Your task to perform on an android device: see creations saved in the google photos Image 0: 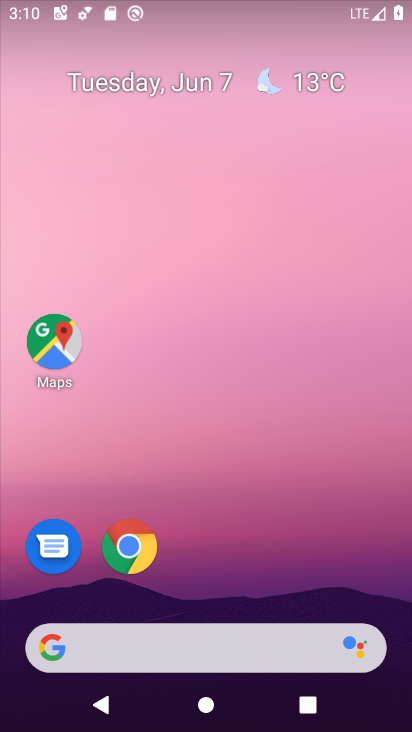
Step 0: drag from (331, 574) to (323, 239)
Your task to perform on an android device: see creations saved in the google photos Image 1: 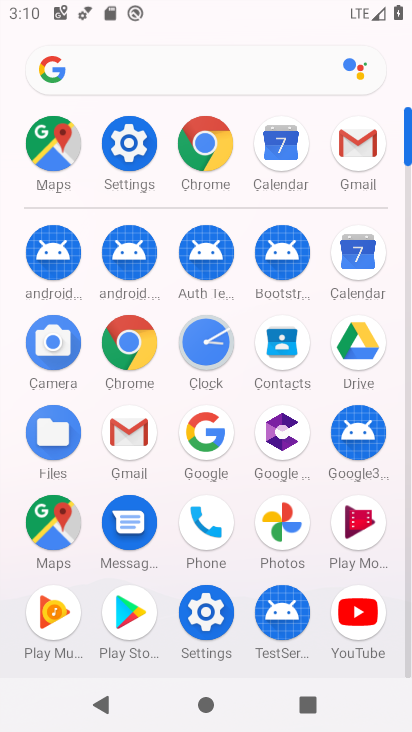
Step 1: click (280, 535)
Your task to perform on an android device: see creations saved in the google photos Image 2: 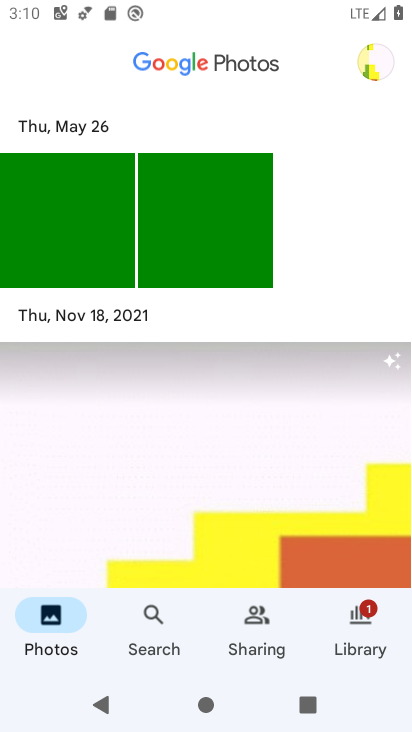
Step 2: click (166, 637)
Your task to perform on an android device: see creations saved in the google photos Image 3: 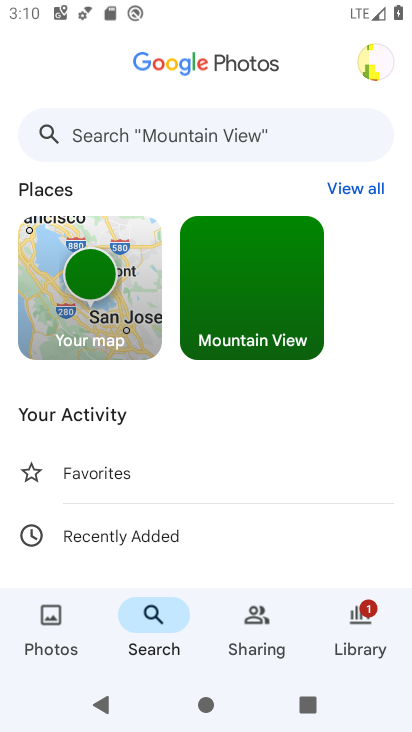
Step 3: drag from (202, 521) to (206, 364)
Your task to perform on an android device: see creations saved in the google photos Image 4: 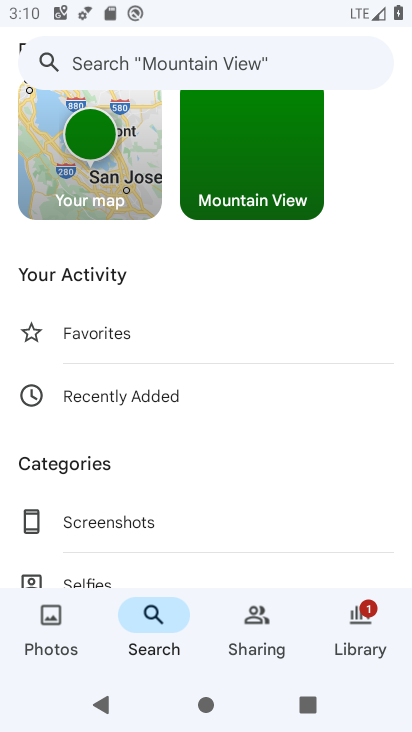
Step 4: drag from (221, 528) to (231, 325)
Your task to perform on an android device: see creations saved in the google photos Image 5: 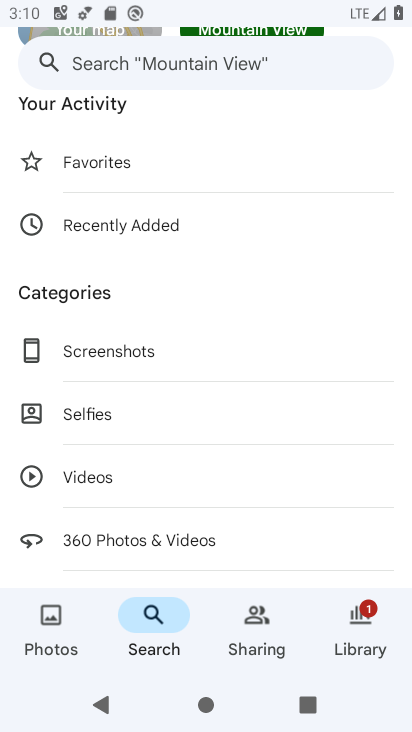
Step 5: drag from (252, 487) to (256, 244)
Your task to perform on an android device: see creations saved in the google photos Image 6: 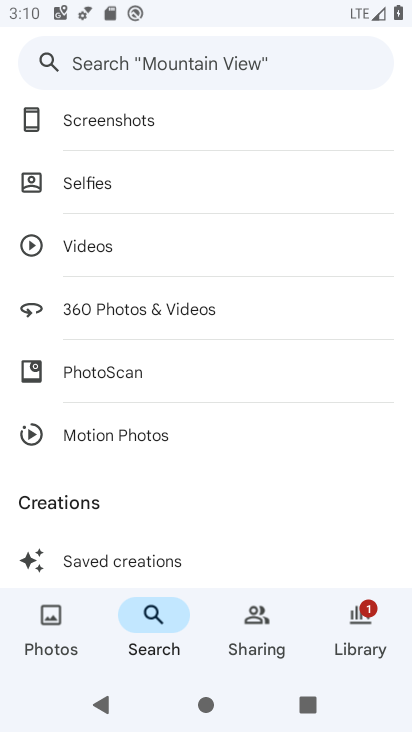
Step 6: drag from (260, 444) to (262, 269)
Your task to perform on an android device: see creations saved in the google photos Image 7: 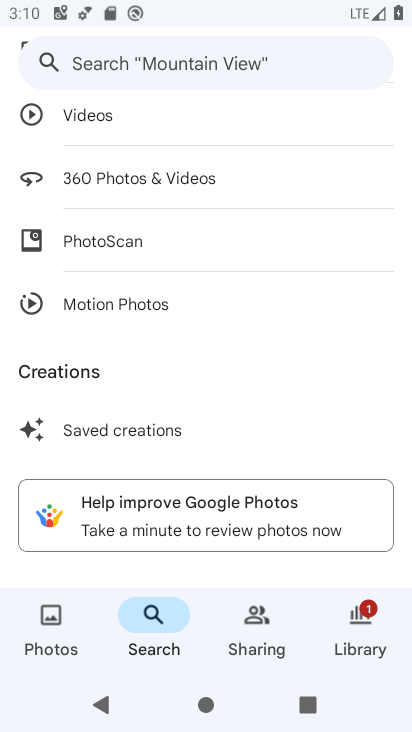
Step 7: click (113, 423)
Your task to perform on an android device: see creations saved in the google photos Image 8: 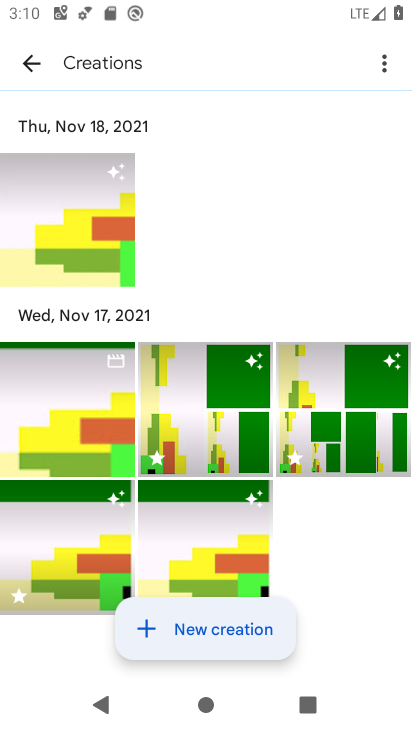
Step 8: task complete